Your task to perform on an android device: uninstall "LinkedIn" Image 0: 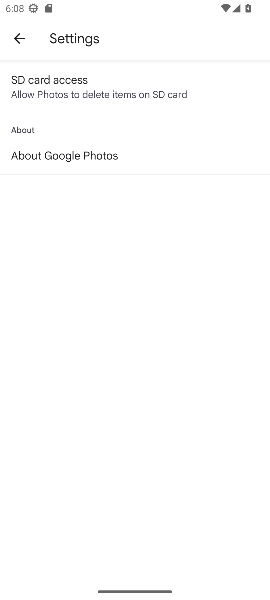
Step 0: press home button
Your task to perform on an android device: uninstall "LinkedIn" Image 1: 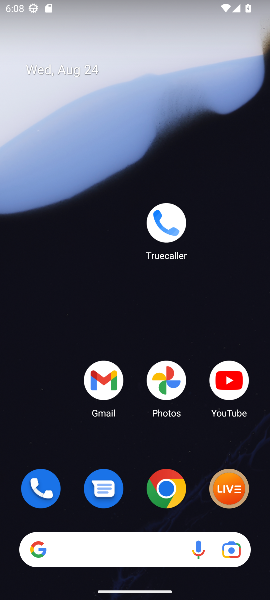
Step 1: drag from (142, 512) to (151, 42)
Your task to perform on an android device: uninstall "LinkedIn" Image 2: 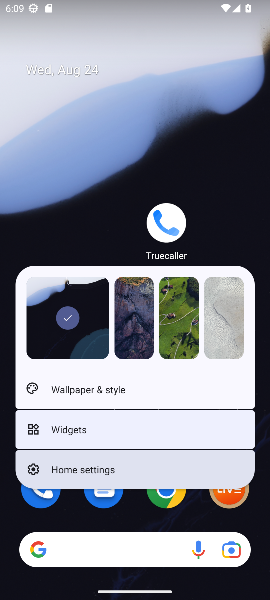
Step 2: click (213, 164)
Your task to perform on an android device: uninstall "LinkedIn" Image 3: 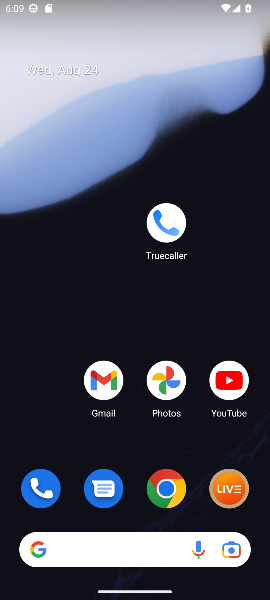
Step 3: drag from (139, 512) to (112, 66)
Your task to perform on an android device: uninstall "LinkedIn" Image 4: 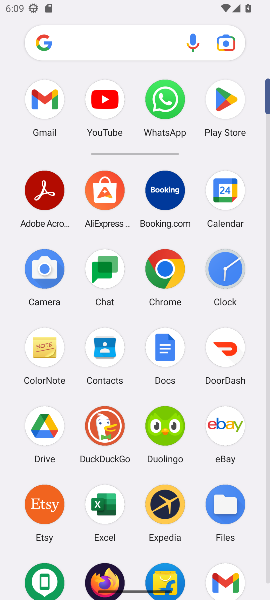
Step 4: click (239, 111)
Your task to perform on an android device: uninstall "LinkedIn" Image 5: 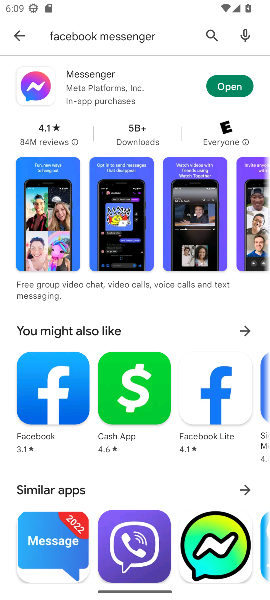
Step 5: click (220, 31)
Your task to perform on an android device: uninstall "LinkedIn" Image 6: 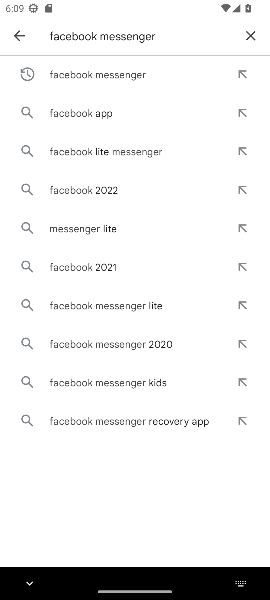
Step 6: click (243, 34)
Your task to perform on an android device: uninstall "LinkedIn" Image 7: 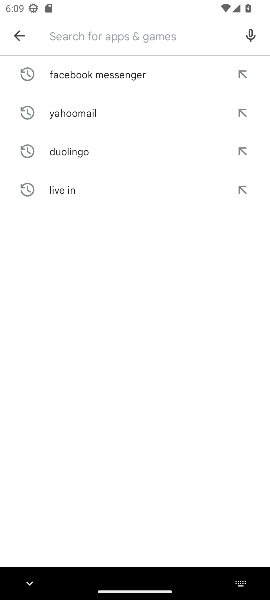
Step 7: type "linkedin"
Your task to perform on an android device: uninstall "LinkedIn" Image 8: 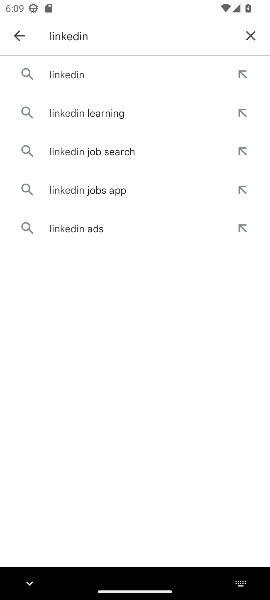
Step 8: click (134, 75)
Your task to perform on an android device: uninstall "LinkedIn" Image 9: 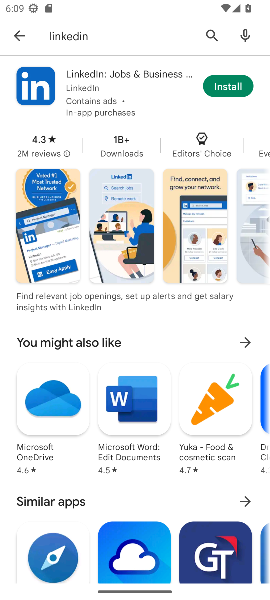
Step 9: click (223, 92)
Your task to perform on an android device: uninstall "LinkedIn" Image 10: 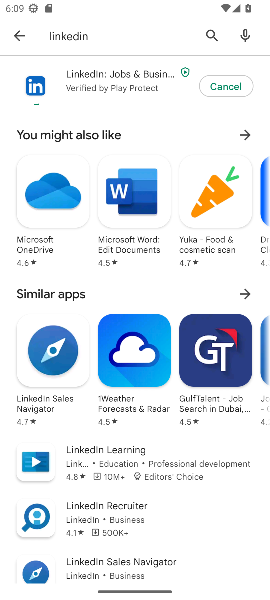
Step 10: task complete